Your task to perform on an android device: turn on priority inbox in the gmail app Image 0: 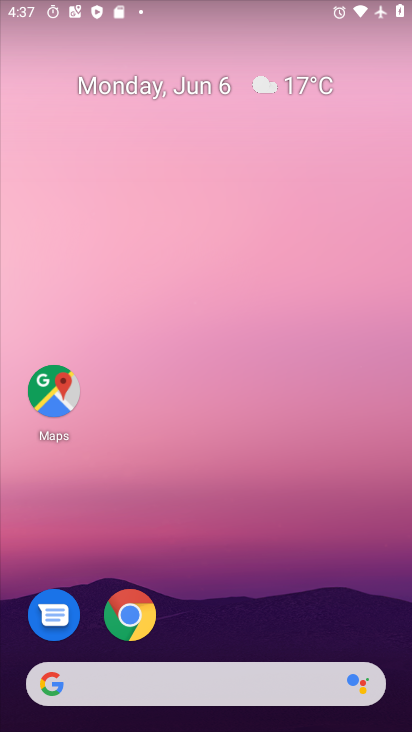
Step 0: drag from (232, 600) to (197, 55)
Your task to perform on an android device: turn on priority inbox in the gmail app Image 1: 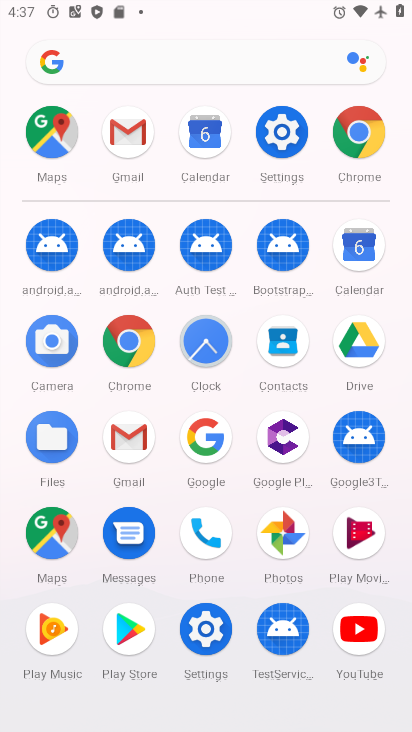
Step 1: drag from (12, 460) to (17, 214)
Your task to perform on an android device: turn on priority inbox in the gmail app Image 2: 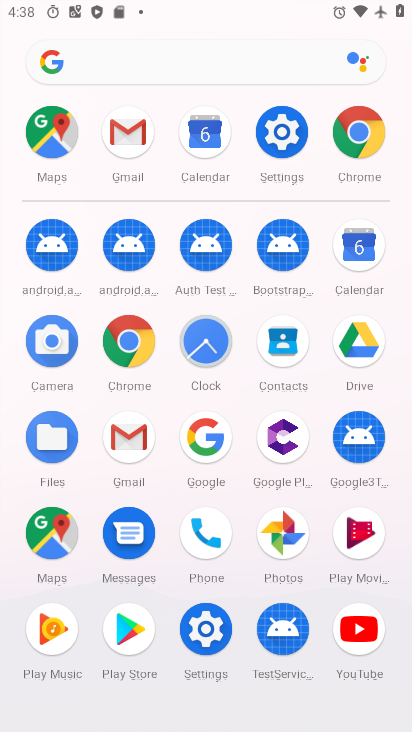
Step 2: click (127, 434)
Your task to perform on an android device: turn on priority inbox in the gmail app Image 3: 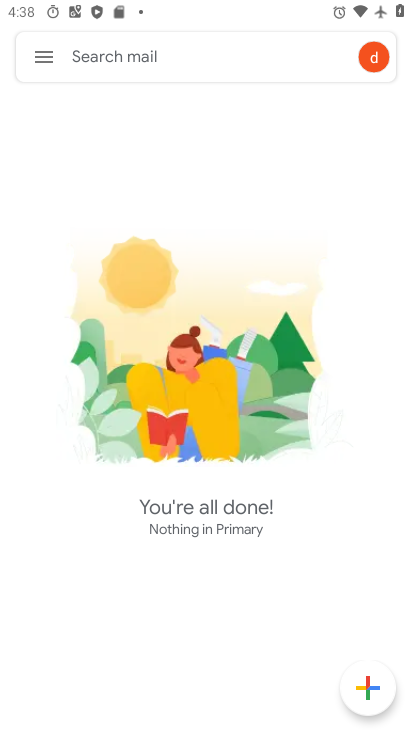
Step 3: click (41, 60)
Your task to perform on an android device: turn on priority inbox in the gmail app Image 4: 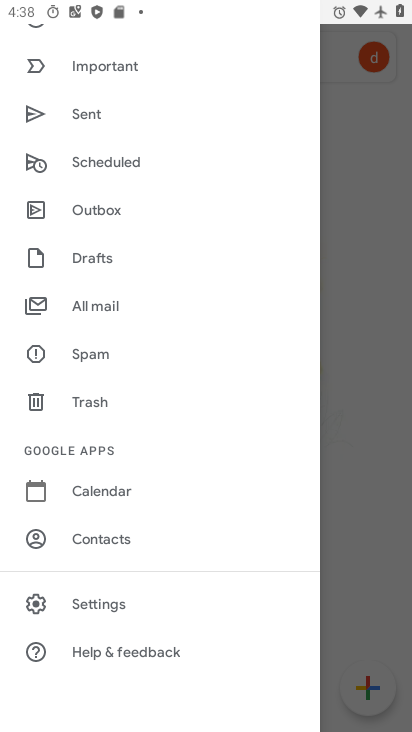
Step 4: click (107, 597)
Your task to perform on an android device: turn on priority inbox in the gmail app Image 5: 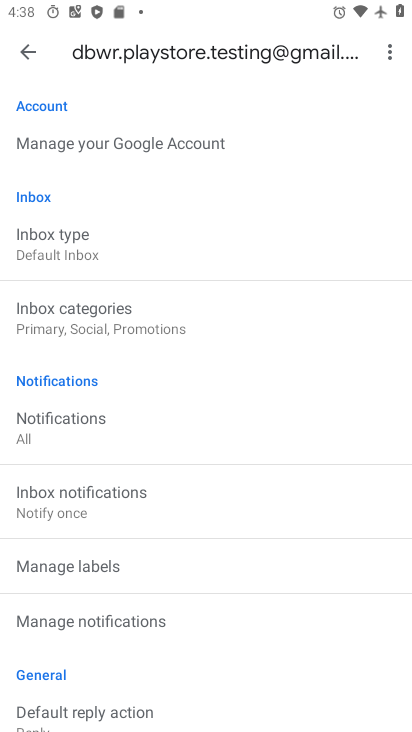
Step 5: click (140, 232)
Your task to perform on an android device: turn on priority inbox in the gmail app Image 6: 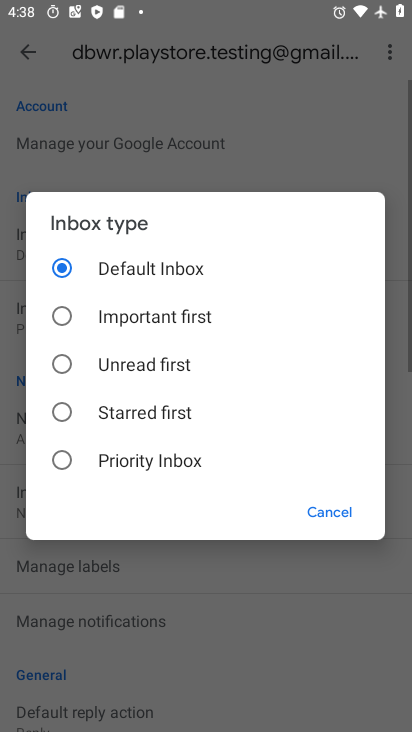
Step 6: click (154, 446)
Your task to perform on an android device: turn on priority inbox in the gmail app Image 7: 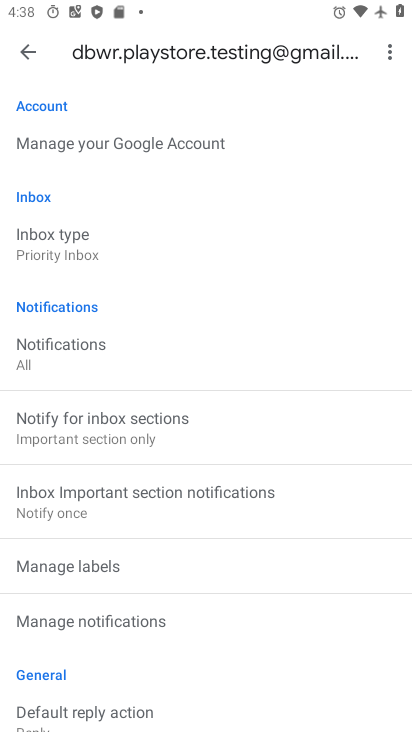
Step 7: task complete